Your task to perform on an android device: check out phone information Image 0: 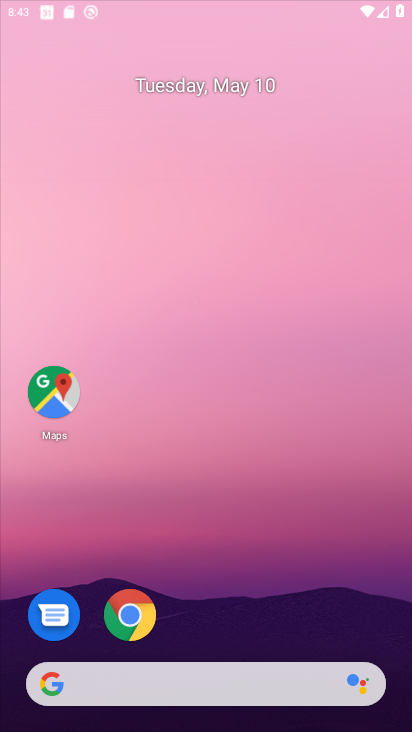
Step 0: click (245, 174)
Your task to perform on an android device: check out phone information Image 1: 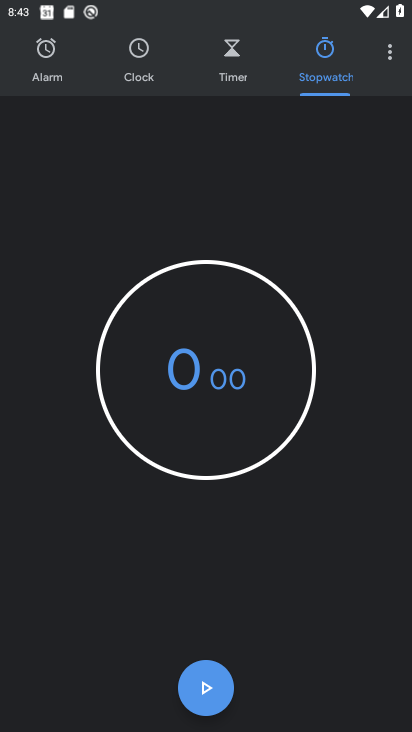
Step 1: press home button
Your task to perform on an android device: check out phone information Image 2: 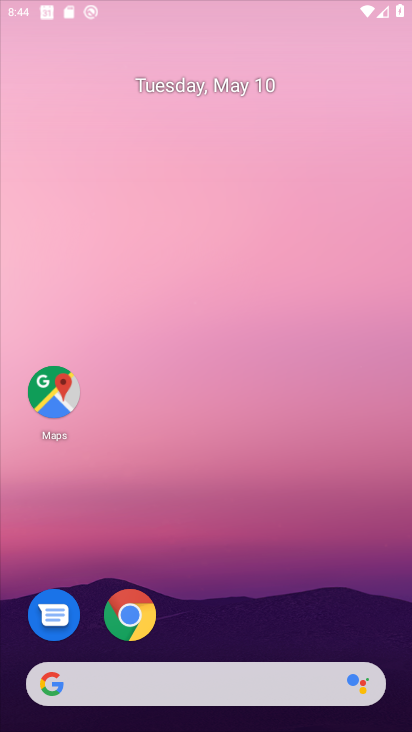
Step 2: drag from (221, 640) to (212, 119)
Your task to perform on an android device: check out phone information Image 3: 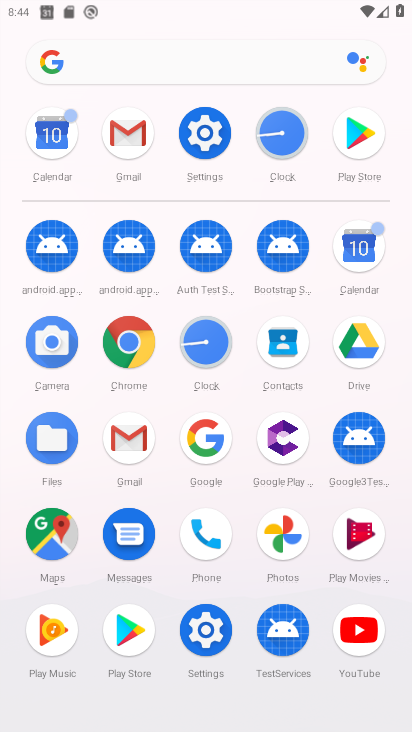
Step 3: click (210, 123)
Your task to perform on an android device: check out phone information Image 4: 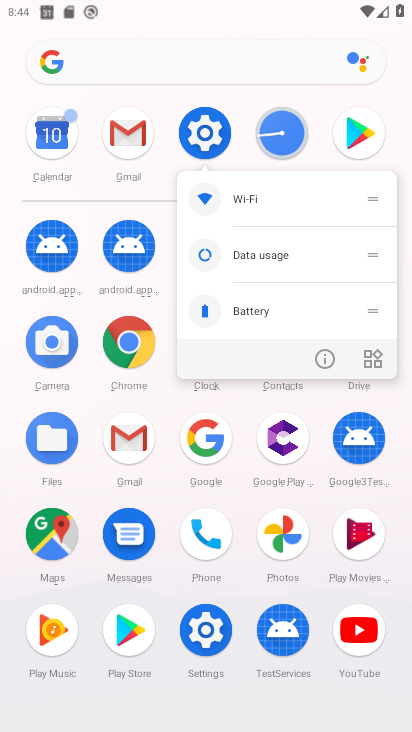
Step 4: click (323, 362)
Your task to perform on an android device: check out phone information Image 5: 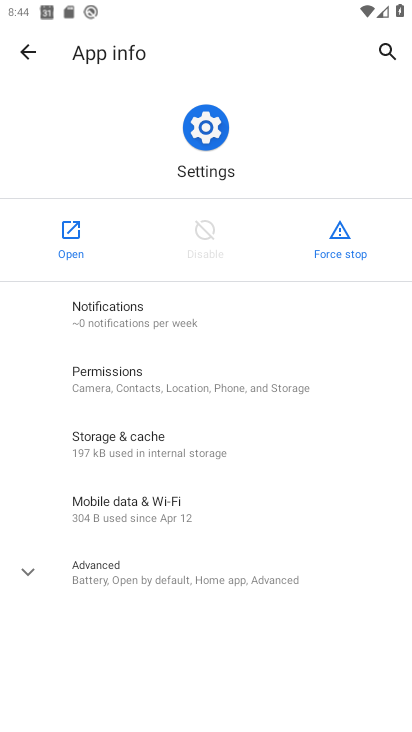
Step 5: click (76, 231)
Your task to perform on an android device: check out phone information Image 6: 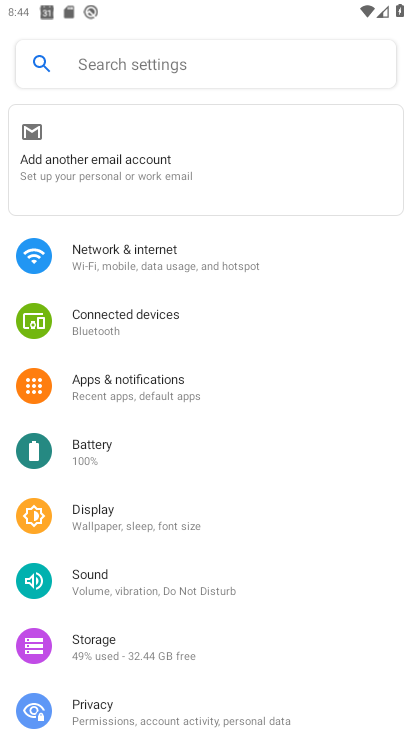
Step 6: drag from (190, 569) to (215, 20)
Your task to perform on an android device: check out phone information Image 7: 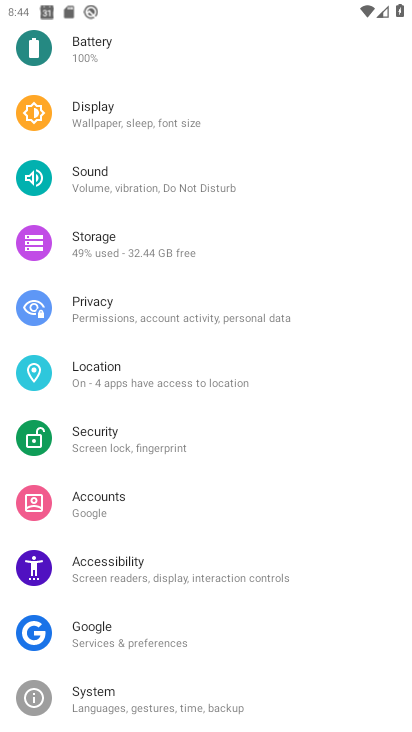
Step 7: drag from (219, 627) to (174, 252)
Your task to perform on an android device: check out phone information Image 8: 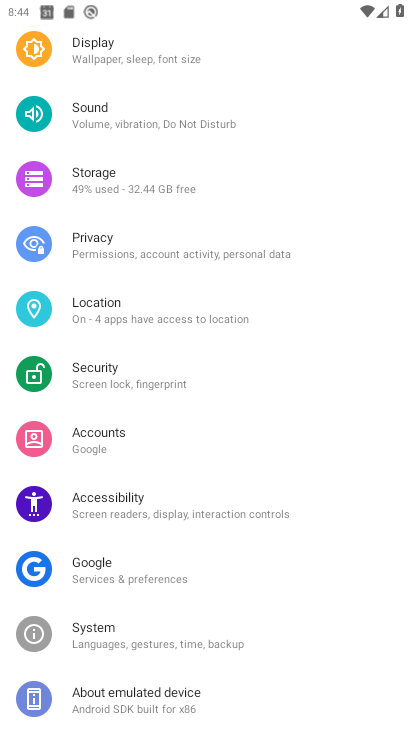
Step 8: click (181, 686)
Your task to perform on an android device: check out phone information Image 9: 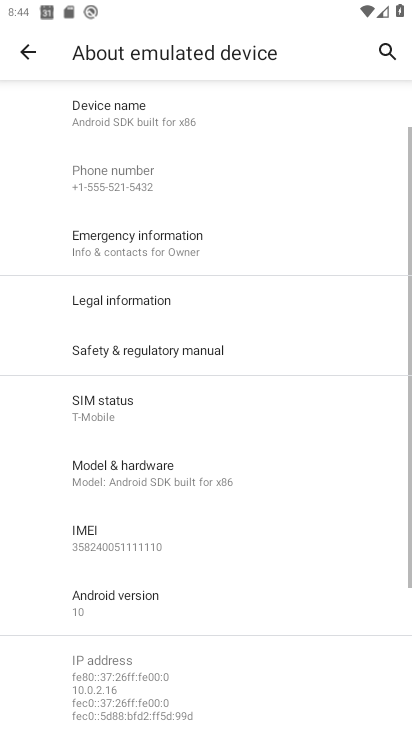
Step 9: task complete